Your task to perform on an android device: change alarm snooze length Image 0: 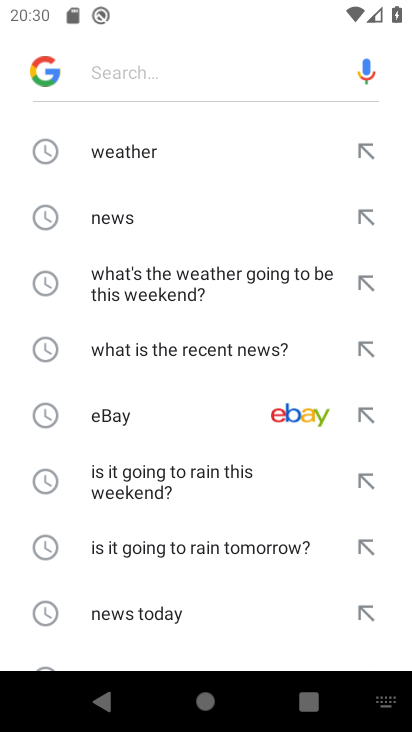
Step 0: press home button
Your task to perform on an android device: change alarm snooze length Image 1: 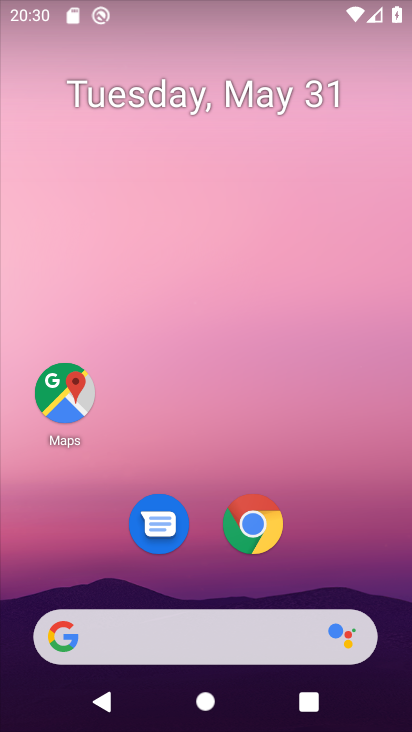
Step 1: drag from (325, 551) to (276, 0)
Your task to perform on an android device: change alarm snooze length Image 2: 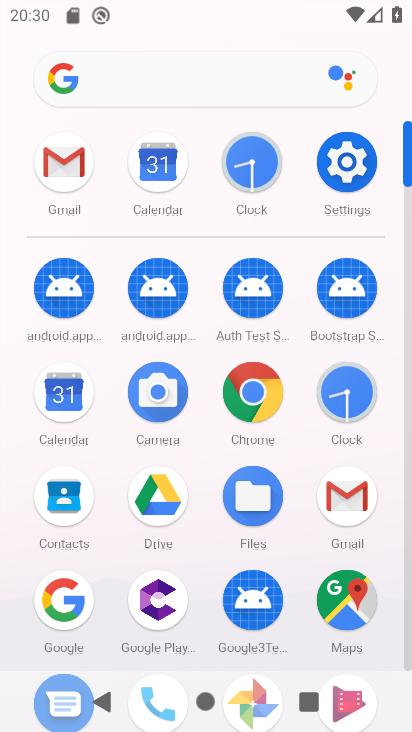
Step 2: click (250, 169)
Your task to perform on an android device: change alarm snooze length Image 3: 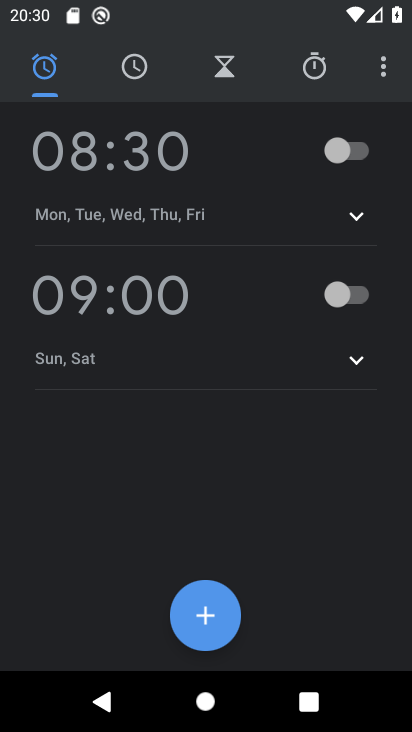
Step 3: click (381, 70)
Your task to perform on an android device: change alarm snooze length Image 4: 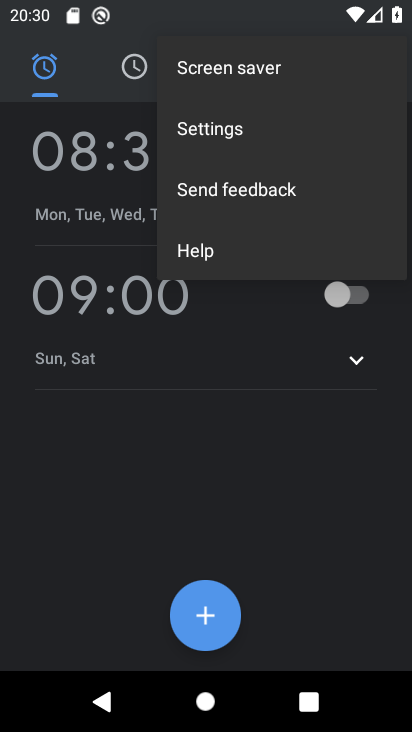
Step 4: click (311, 132)
Your task to perform on an android device: change alarm snooze length Image 5: 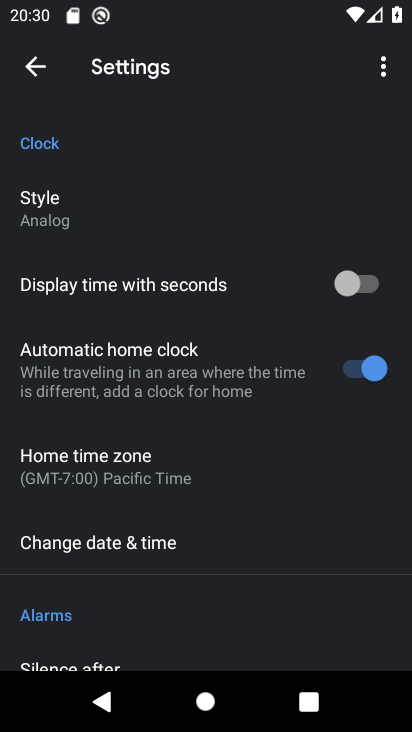
Step 5: drag from (259, 486) to (244, 109)
Your task to perform on an android device: change alarm snooze length Image 6: 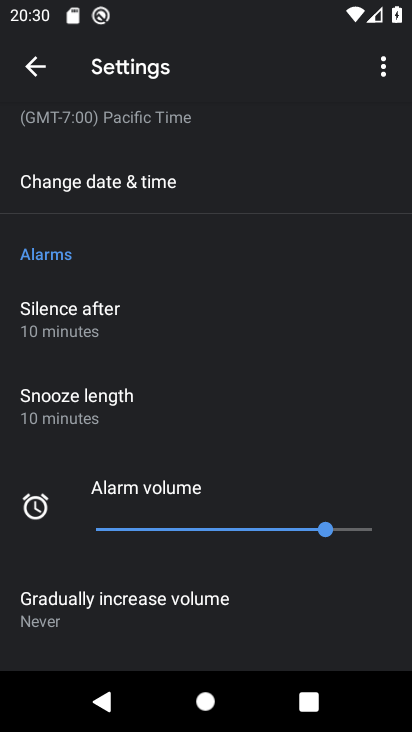
Step 6: click (179, 401)
Your task to perform on an android device: change alarm snooze length Image 7: 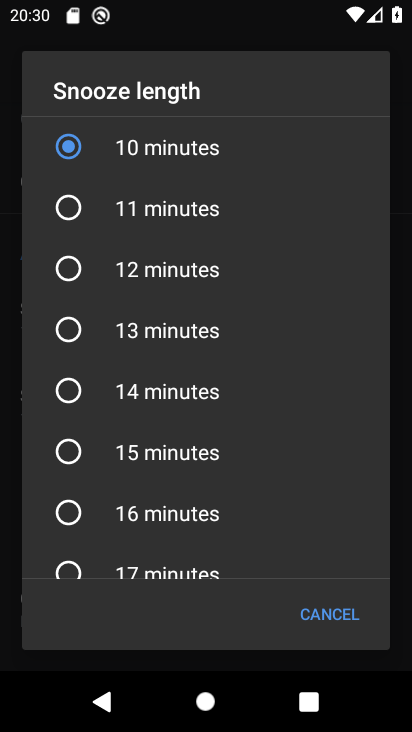
Step 7: click (80, 275)
Your task to perform on an android device: change alarm snooze length Image 8: 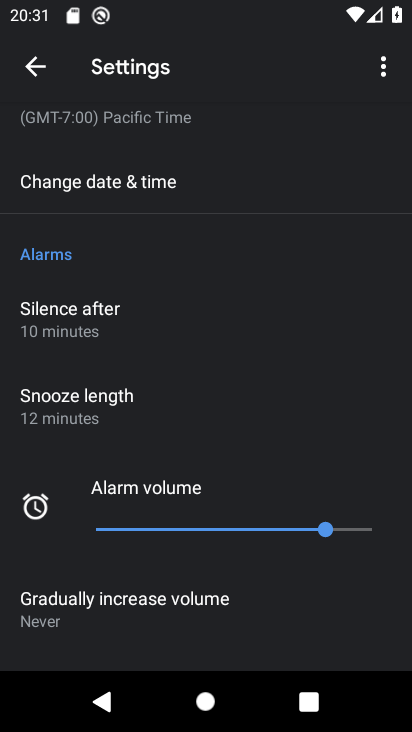
Step 8: task complete